Your task to perform on an android device: Go to Amazon Image 0: 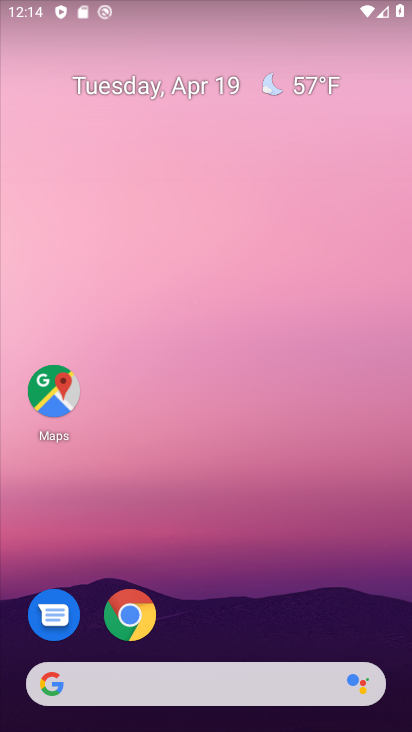
Step 0: click (141, 618)
Your task to perform on an android device: Go to Amazon Image 1: 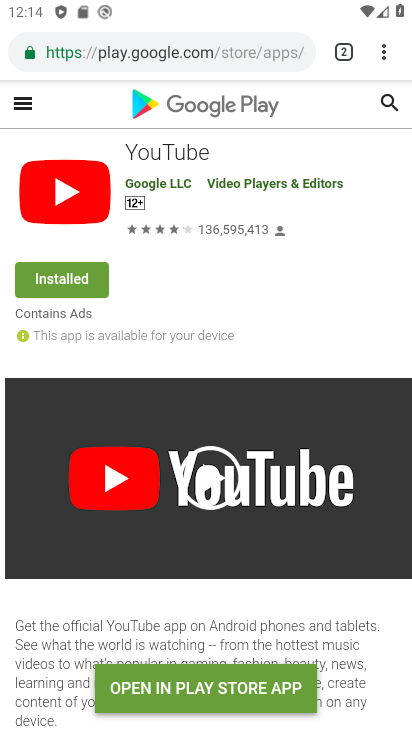
Step 1: click (337, 44)
Your task to perform on an android device: Go to Amazon Image 2: 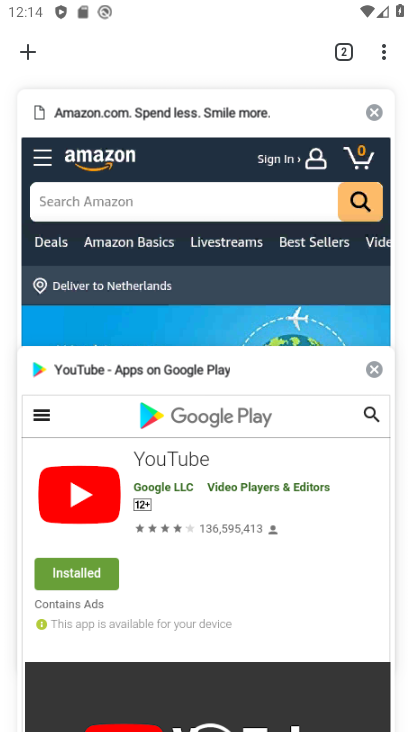
Step 2: click (231, 158)
Your task to perform on an android device: Go to Amazon Image 3: 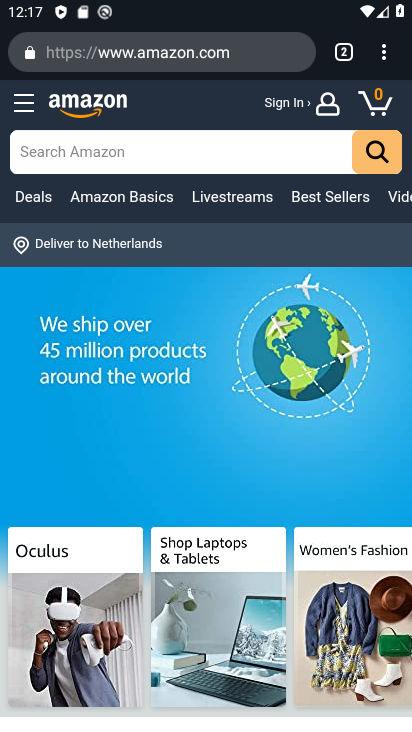
Step 3: task complete